Your task to perform on an android device: Open Google Chrome and open the bookmarks view Image 0: 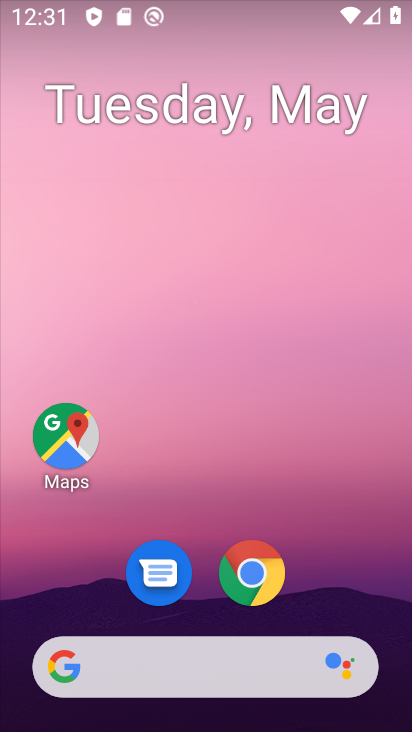
Step 0: drag from (295, 547) to (233, 19)
Your task to perform on an android device: Open Google Chrome and open the bookmarks view Image 1: 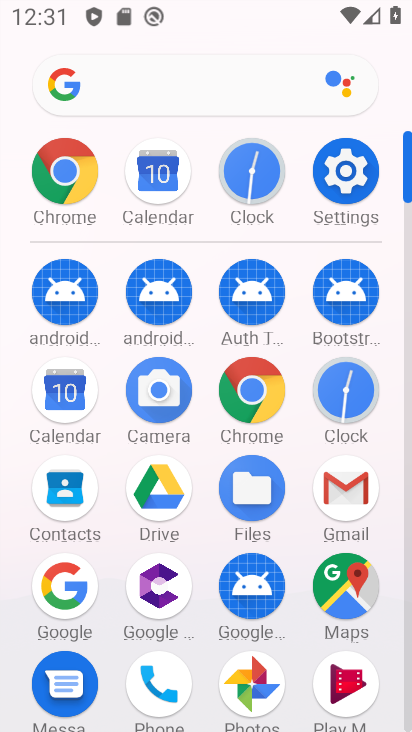
Step 1: click (54, 164)
Your task to perform on an android device: Open Google Chrome and open the bookmarks view Image 2: 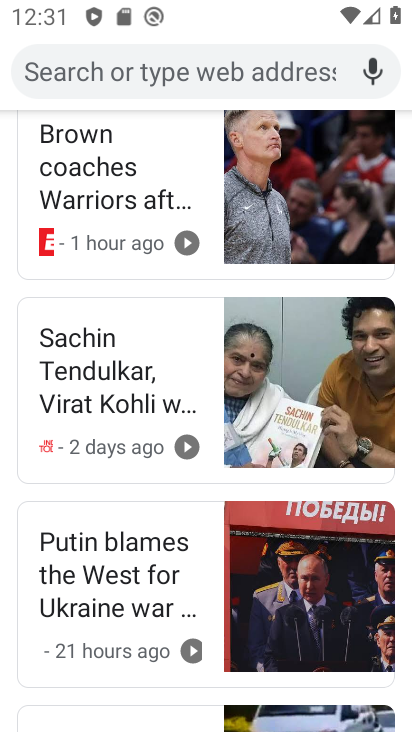
Step 2: drag from (297, 236) to (281, 614)
Your task to perform on an android device: Open Google Chrome and open the bookmarks view Image 3: 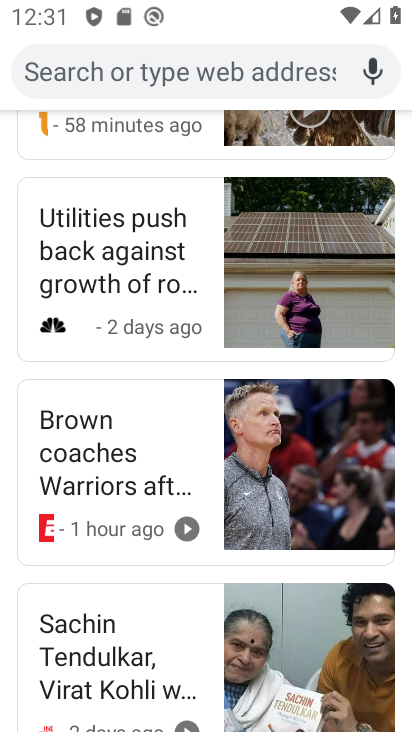
Step 3: drag from (326, 113) to (288, 629)
Your task to perform on an android device: Open Google Chrome and open the bookmarks view Image 4: 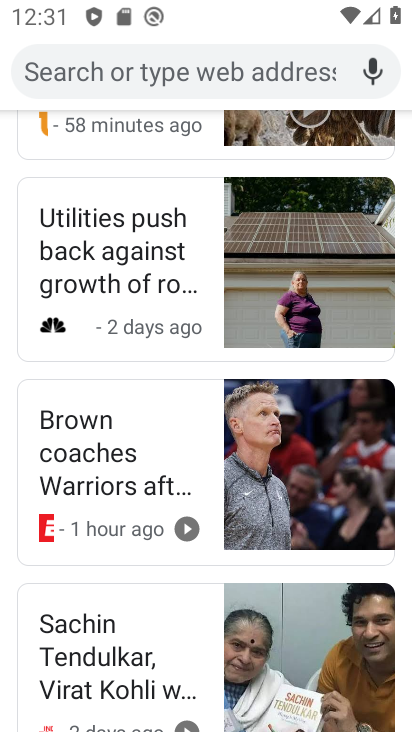
Step 4: drag from (241, 183) to (218, 650)
Your task to perform on an android device: Open Google Chrome and open the bookmarks view Image 5: 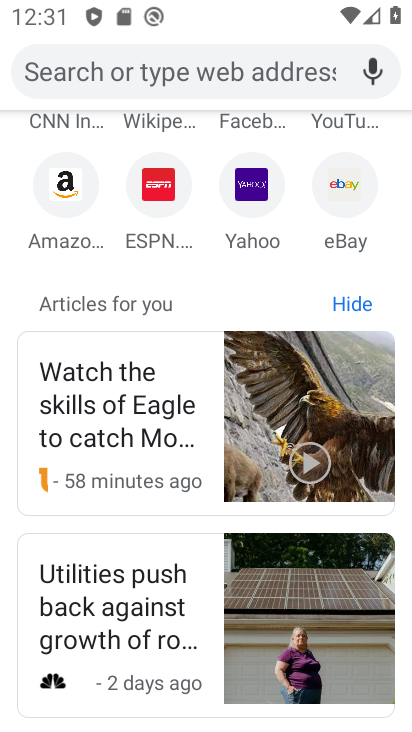
Step 5: drag from (255, 186) to (214, 629)
Your task to perform on an android device: Open Google Chrome and open the bookmarks view Image 6: 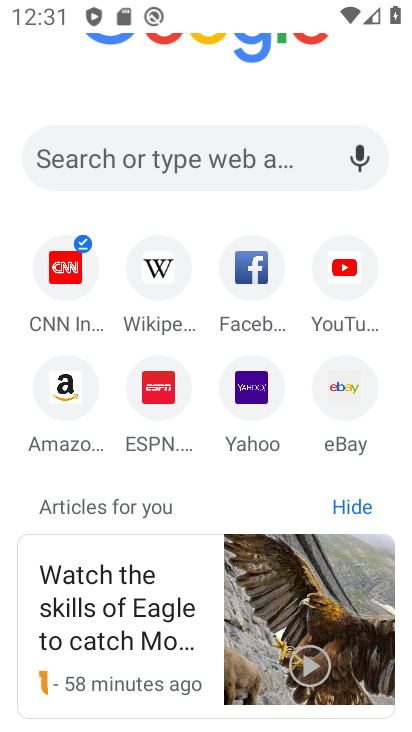
Step 6: drag from (292, 184) to (303, 624)
Your task to perform on an android device: Open Google Chrome and open the bookmarks view Image 7: 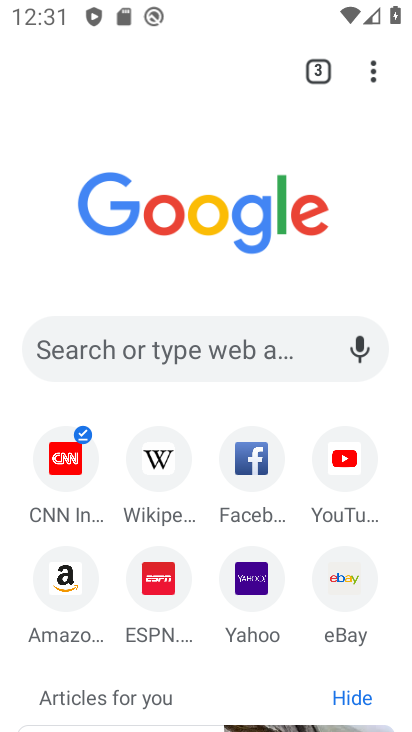
Step 7: drag from (369, 65) to (167, 284)
Your task to perform on an android device: Open Google Chrome and open the bookmarks view Image 8: 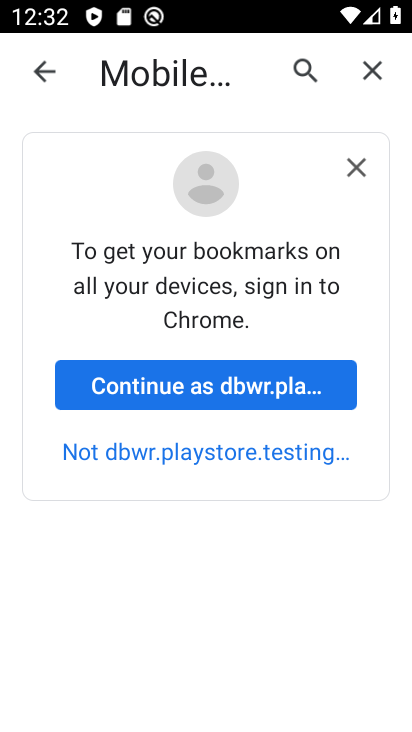
Step 8: click (182, 372)
Your task to perform on an android device: Open Google Chrome and open the bookmarks view Image 9: 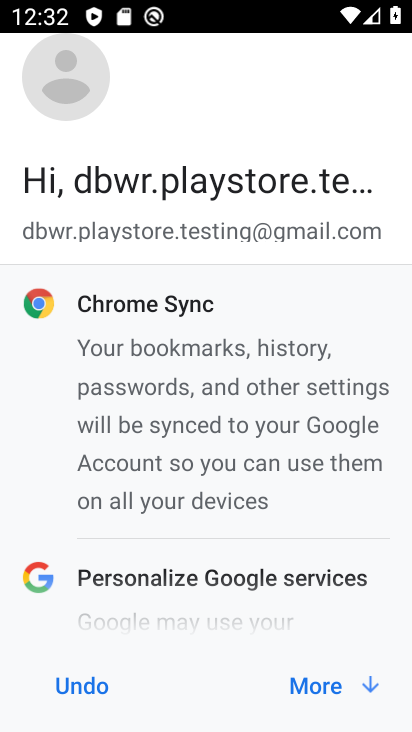
Step 9: drag from (295, 543) to (261, 96)
Your task to perform on an android device: Open Google Chrome and open the bookmarks view Image 10: 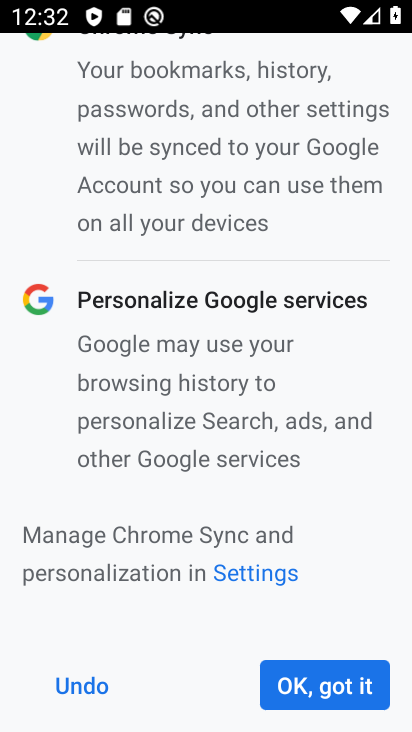
Step 10: drag from (236, 477) to (190, 129)
Your task to perform on an android device: Open Google Chrome and open the bookmarks view Image 11: 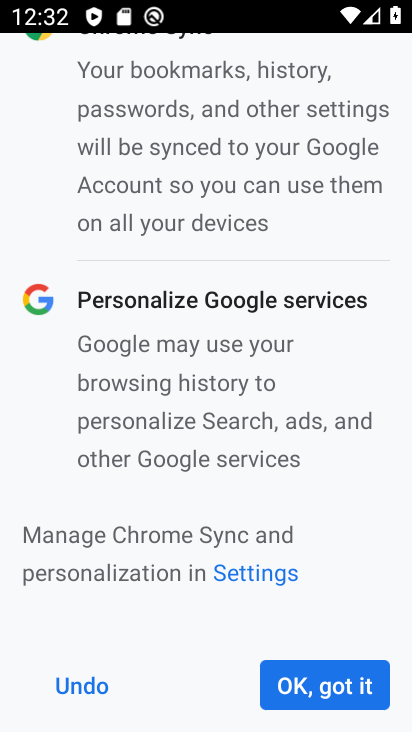
Step 11: click (365, 688)
Your task to perform on an android device: Open Google Chrome and open the bookmarks view Image 12: 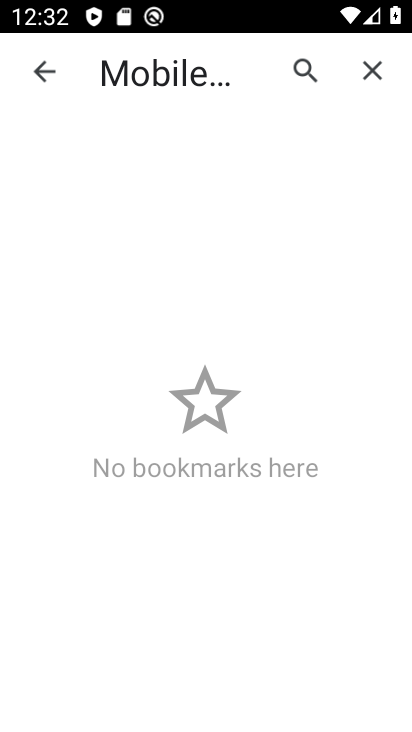
Step 12: task complete